Your task to perform on an android device: Is it going to rain this weekend? Image 0: 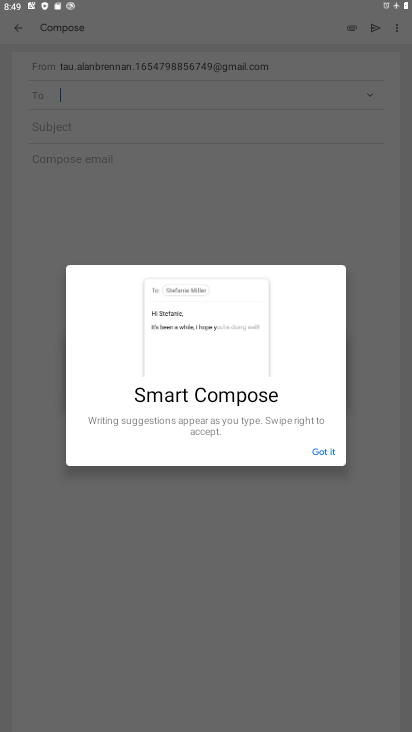
Step 0: press home button
Your task to perform on an android device: Is it going to rain this weekend? Image 1: 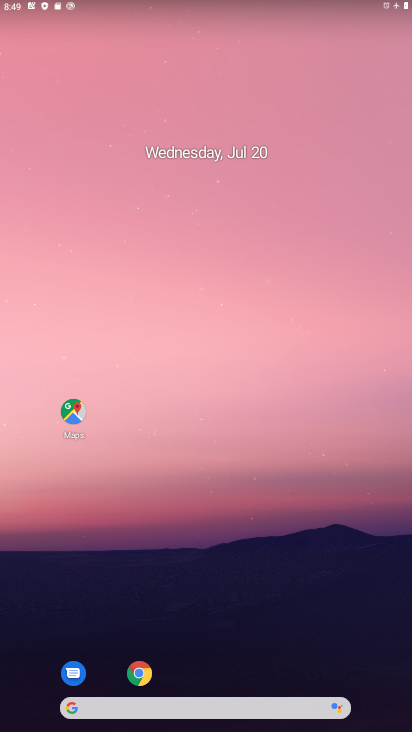
Step 1: drag from (230, 718) to (234, 303)
Your task to perform on an android device: Is it going to rain this weekend? Image 2: 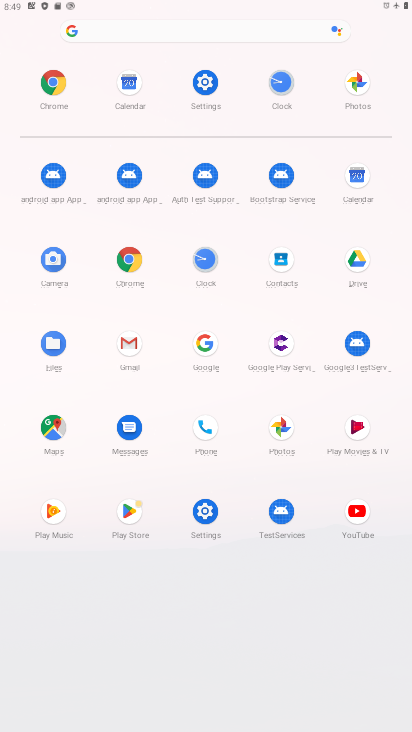
Step 2: click (205, 342)
Your task to perform on an android device: Is it going to rain this weekend? Image 3: 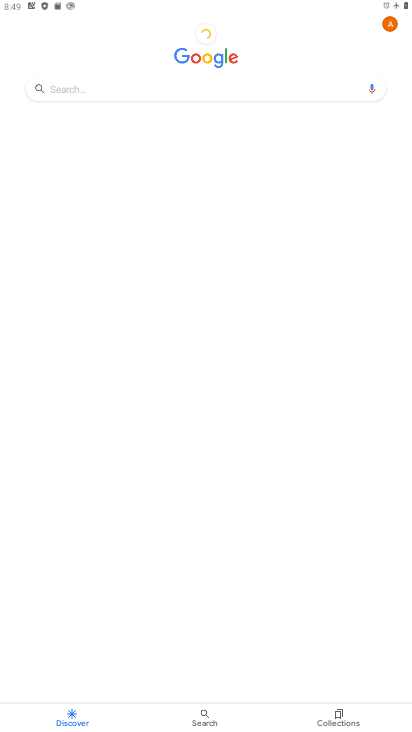
Step 3: click (176, 87)
Your task to perform on an android device: Is it going to rain this weekend? Image 4: 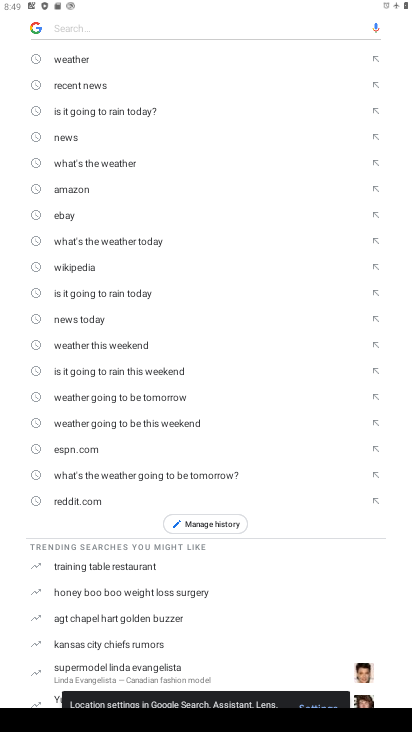
Step 4: click (66, 57)
Your task to perform on an android device: Is it going to rain this weekend? Image 5: 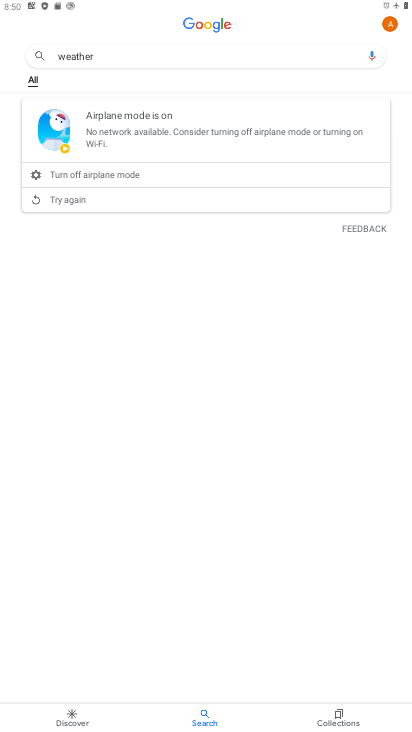
Step 5: task complete